Your task to perform on an android device: Go to settings Image 0: 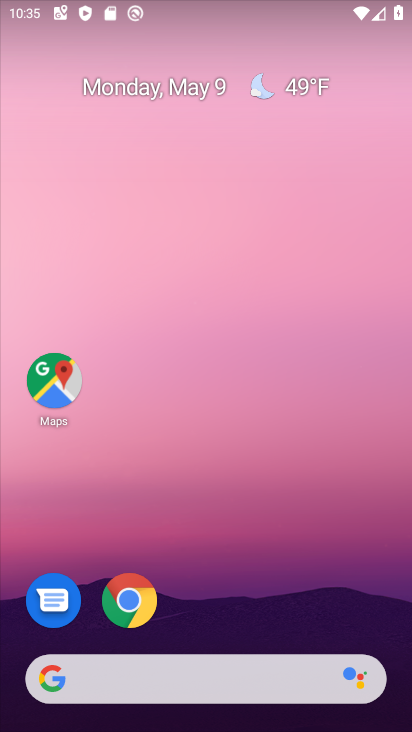
Step 0: drag from (296, 567) to (283, 207)
Your task to perform on an android device: Go to settings Image 1: 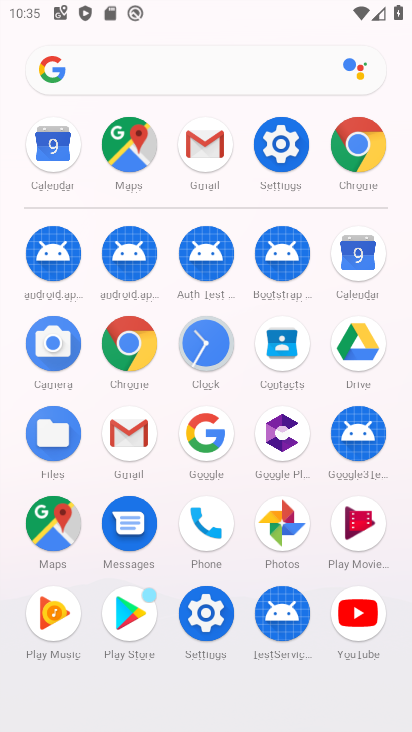
Step 1: click (213, 600)
Your task to perform on an android device: Go to settings Image 2: 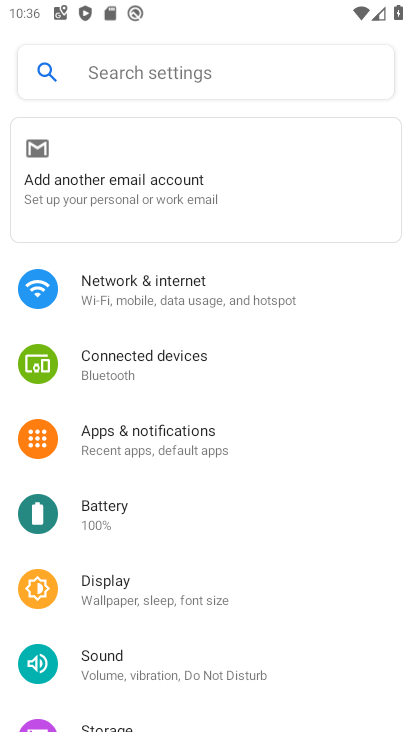
Step 2: task complete